Your task to perform on an android device: Go to Yahoo.com Image 0: 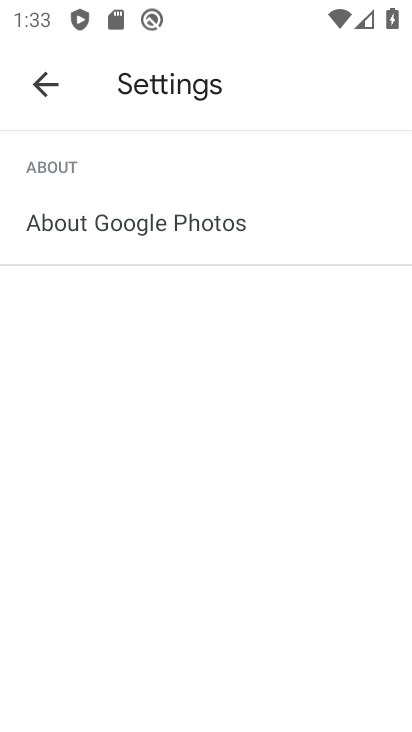
Step 0: press home button
Your task to perform on an android device: Go to Yahoo.com Image 1: 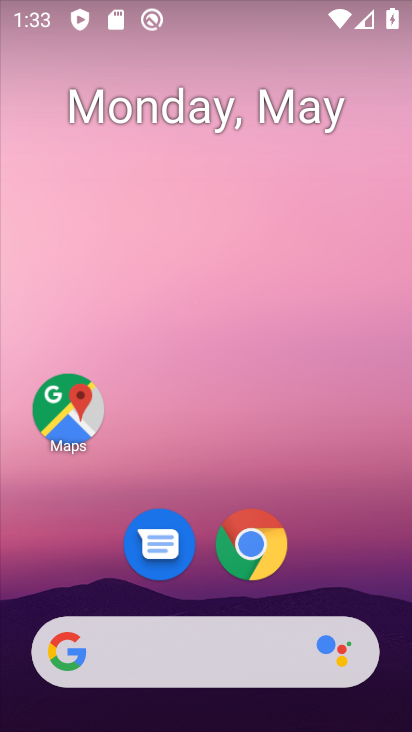
Step 1: drag from (376, 579) to (369, 199)
Your task to perform on an android device: Go to Yahoo.com Image 2: 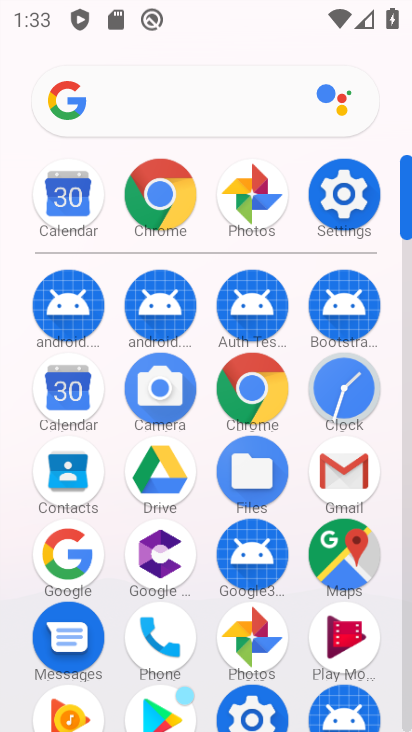
Step 2: click (261, 399)
Your task to perform on an android device: Go to Yahoo.com Image 3: 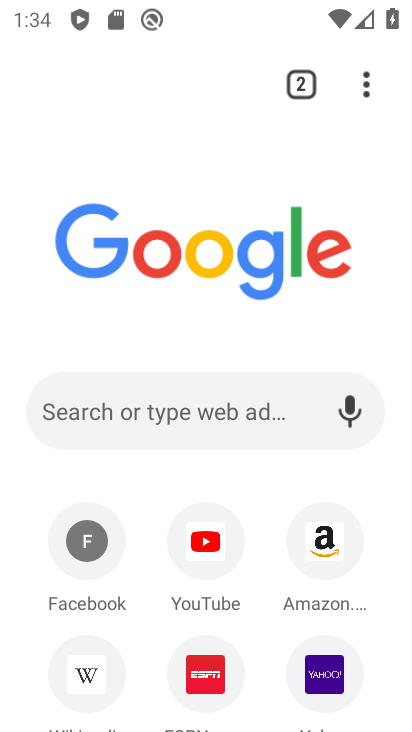
Step 3: click (222, 409)
Your task to perform on an android device: Go to Yahoo.com Image 4: 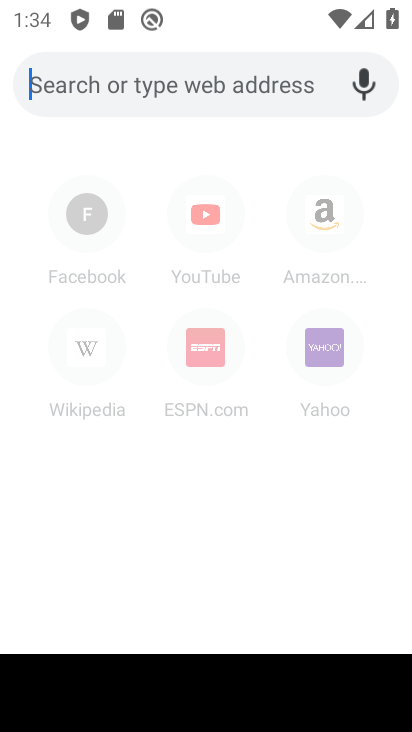
Step 4: type "yahoo.xom"
Your task to perform on an android device: Go to Yahoo.com Image 5: 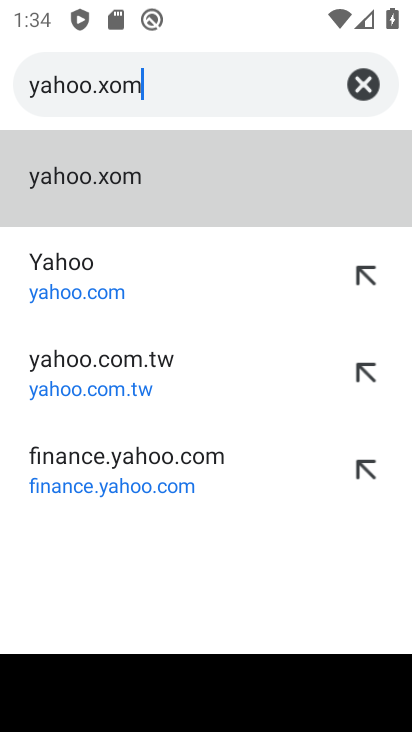
Step 5: click (123, 198)
Your task to perform on an android device: Go to Yahoo.com Image 6: 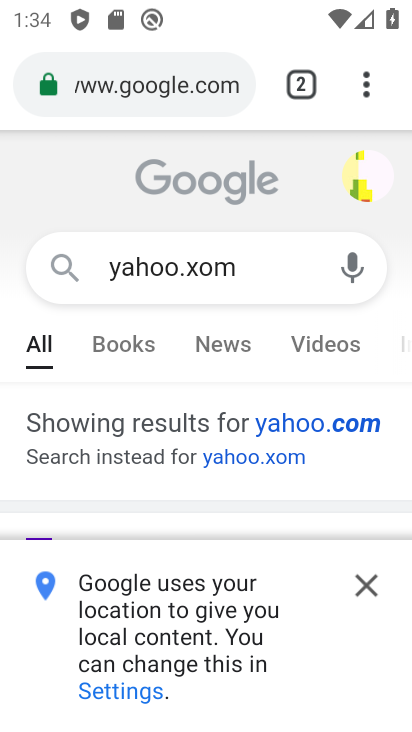
Step 6: task complete